Your task to perform on an android device: turn off airplane mode Image 0: 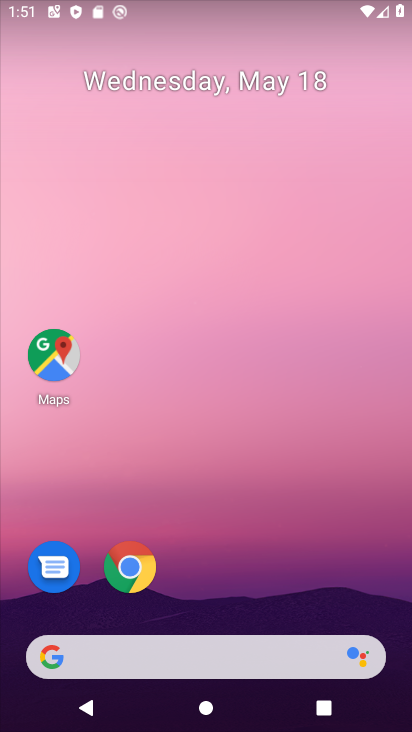
Step 0: drag from (267, 593) to (272, 98)
Your task to perform on an android device: turn off airplane mode Image 1: 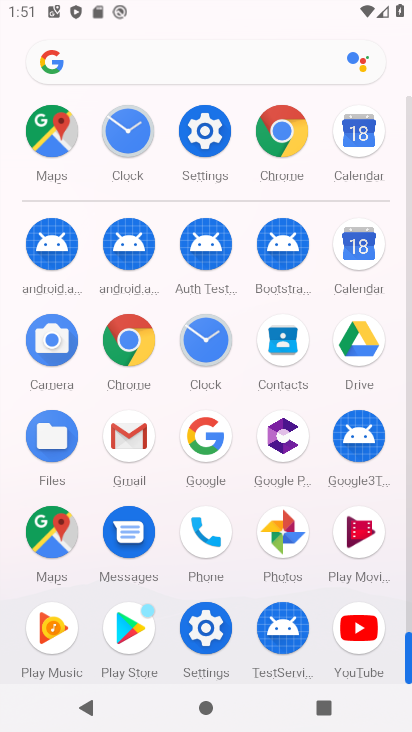
Step 1: click (198, 129)
Your task to perform on an android device: turn off airplane mode Image 2: 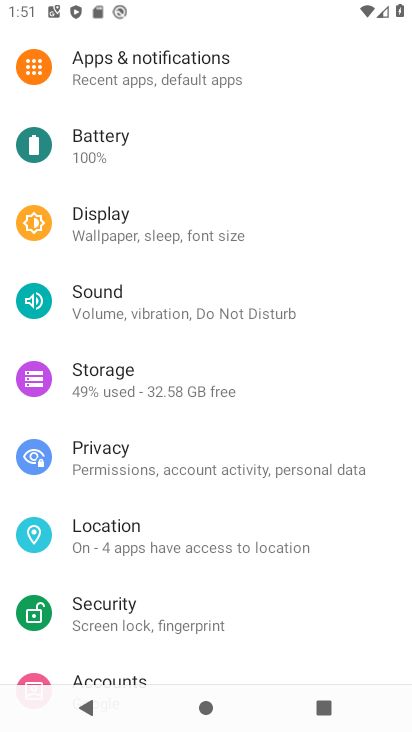
Step 2: drag from (211, 112) to (178, 534)
Your task to perform on an android device: turn off airplane mode Image 3: 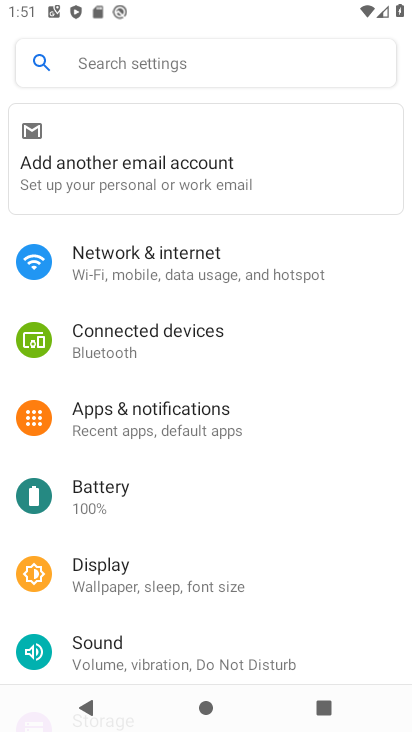
Step 3: click (185, 256)
Your task to perform on an android device: turn off airplane mode Image 4: 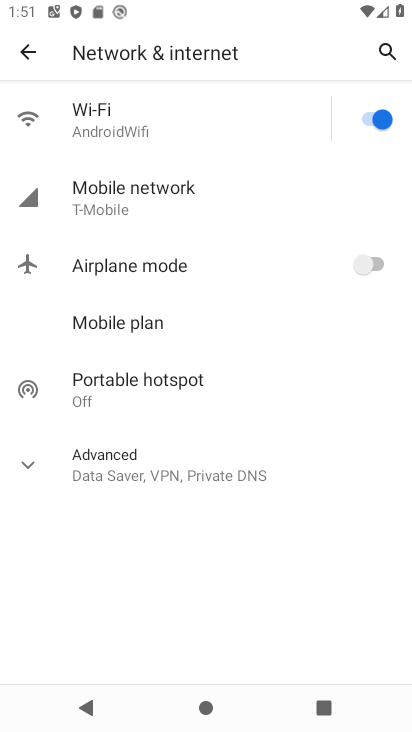
Step 4: task complete